Your task to perform on an android device: Do I have any events today? Image 0: 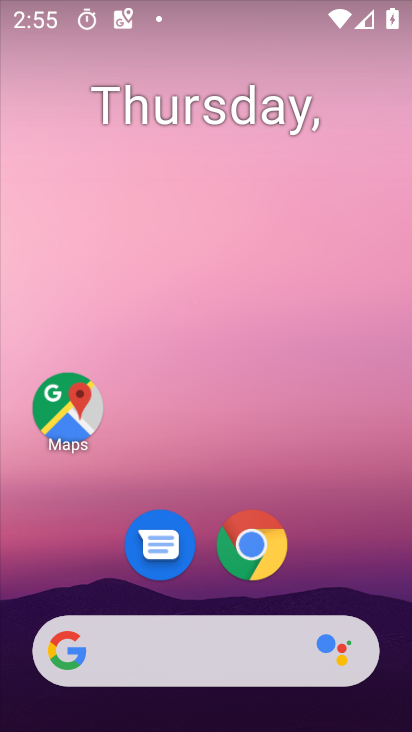
Step 0: drag from (197, 723) to (241, 106)
Your task to perform on an android device: Do I have any events today? Image 1: 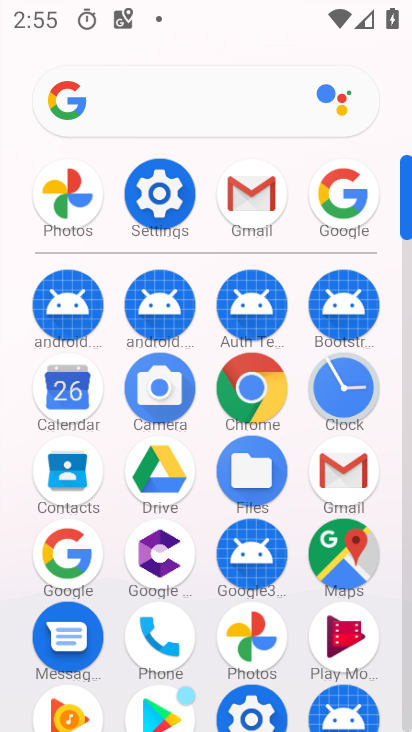
Step 1: click (63, 394)
Your task to perform on an android device: Do I have any events today? Image 2: 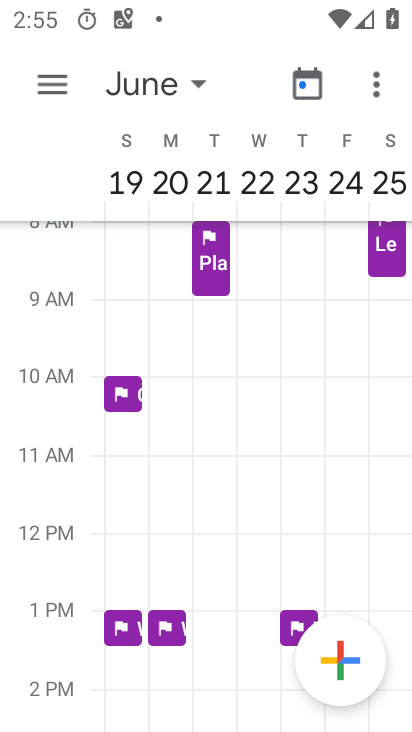
Step 2: click (189, 85)
Your task to perform on an android device: Do I have any events today? Image 3: 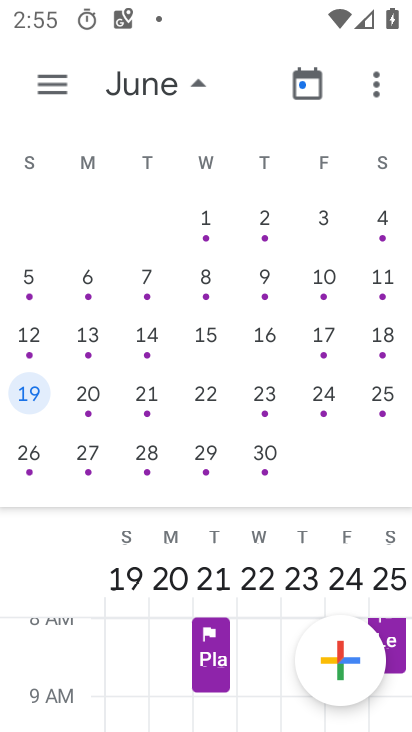
Step 3: drag from (35, 336) to (410, 336)
Your task to perform on an android device: Do I have any events today? Image 4: 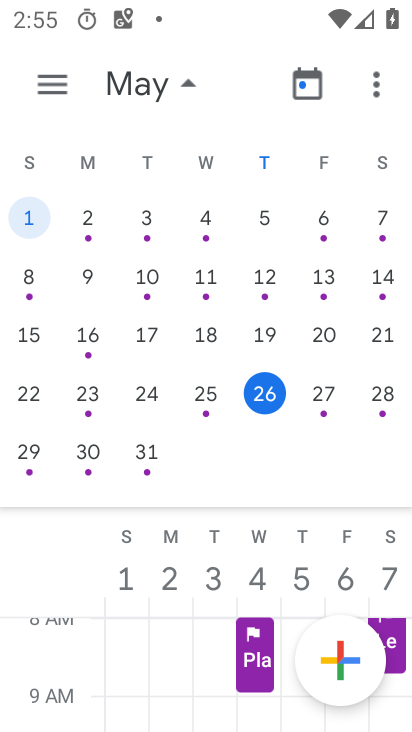
Step 4: click (262, 388)
Your task to perform on an android device: Do I have any events today? Image 5: 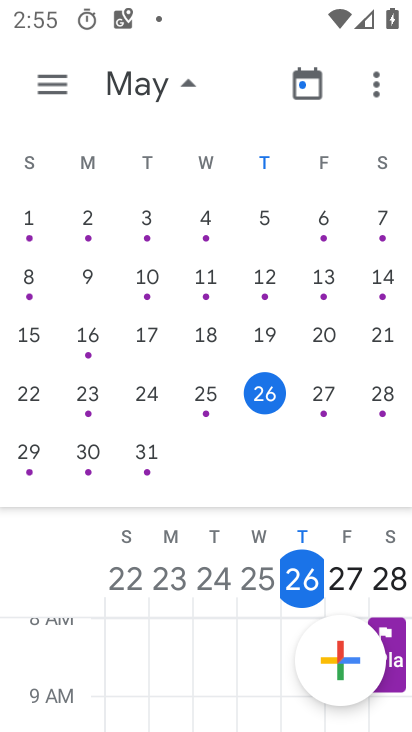
Step 5: click (186, 79)
Your task to perform on an android device: Do I have any events today? Image 6: 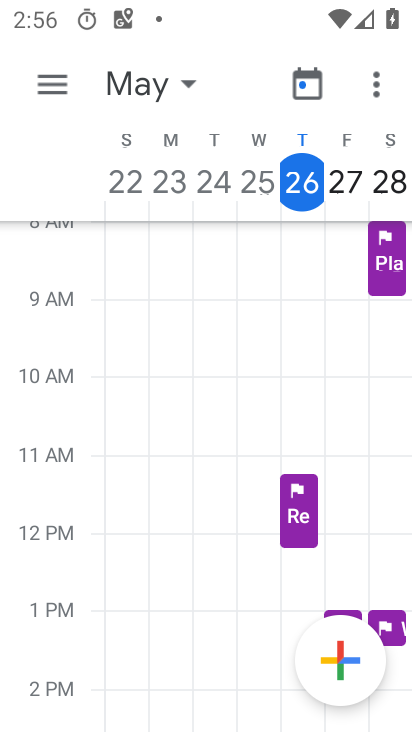
Step 6: task complete